Your task to perform on an android device: turn on sleep mode Image 0: 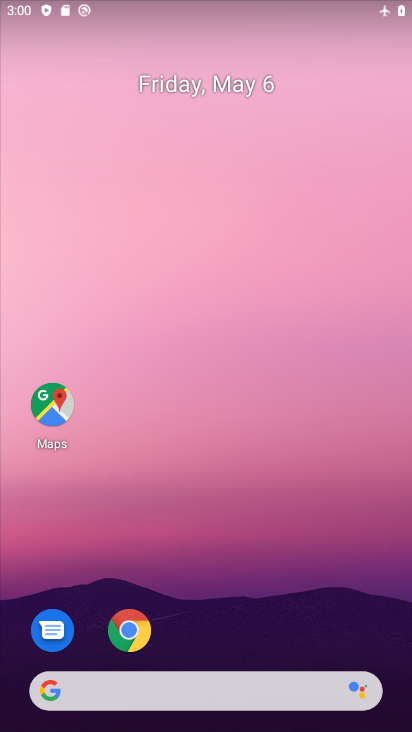
Step 0: drag from (296, 654) to (302, 69)
Your task to perform on an android device: turn on sleep mode Image 1: 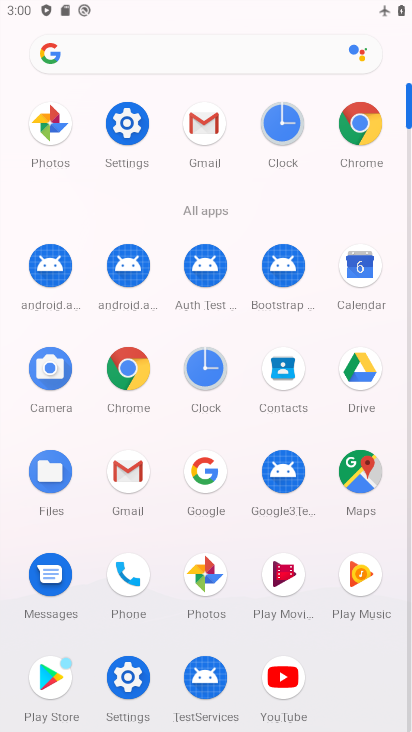
Step 1: click (125, 126)
Your task to perform on an android device: turn on sleep mode Image 2: 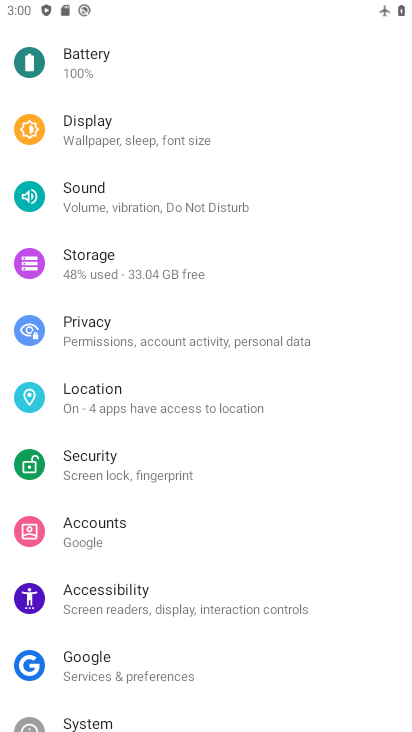
Step 2: drag from (187, 672) to (126, 370)
Your task to perform on an android device: turn on sleep mode Image 3: 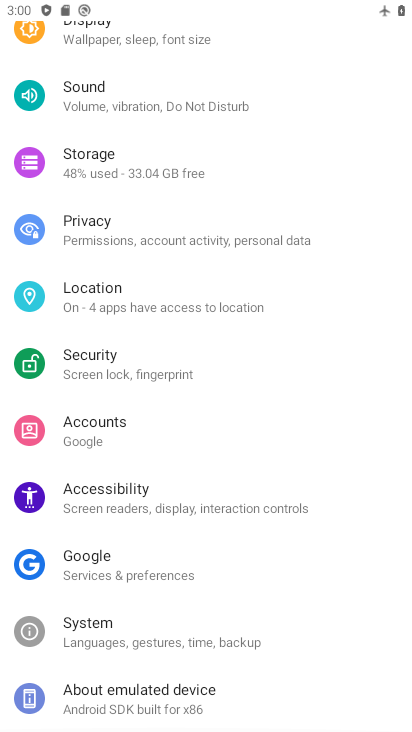
Step 3: drag from (126, 370) to (203, 580)
Your task to perform on an android device: turn on sleep mode Image 4: 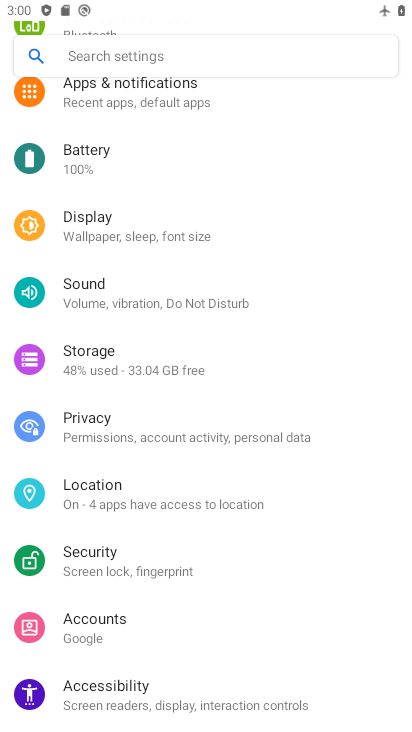
Step 4: drag from (156, 435) to (175, 544)
Your task to perform on an android device: turn on sleep mode Image 5: 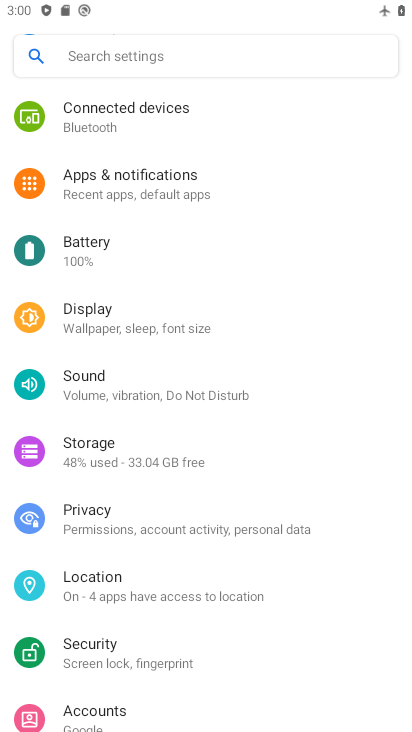
Step 5: drag from (159, 349) to (185, 526)
Your task to perform on an android device: turn on sleep mode Image 6: 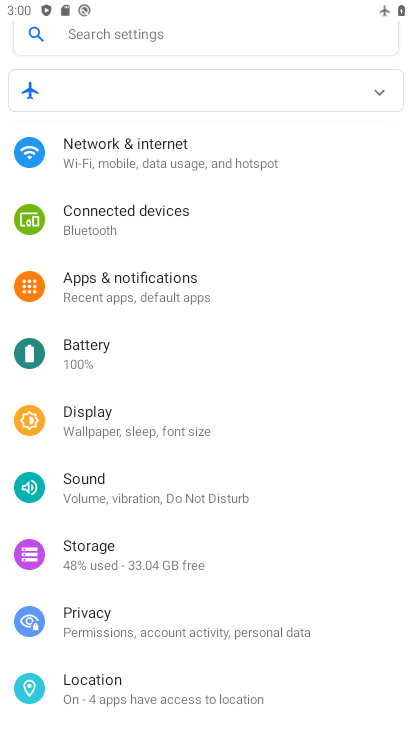
Step 6: drag from (134, 262) to (189, 620)
Your task to perform on an android device: turn on sleep mode Image 7: 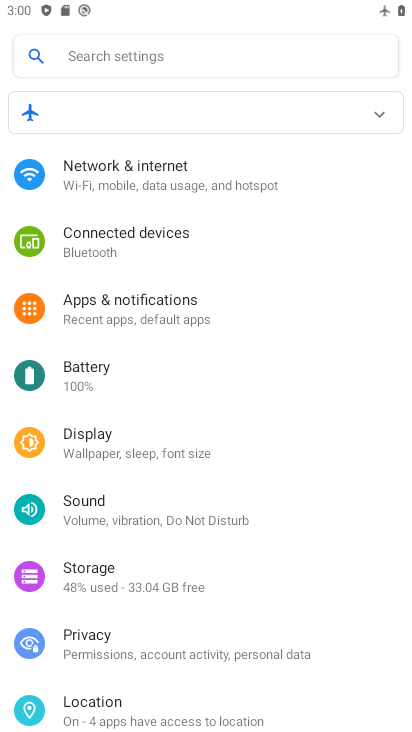
Step 7: click (153, 301)
Your task to perform on an android device: turn on sleep mode Image 8: 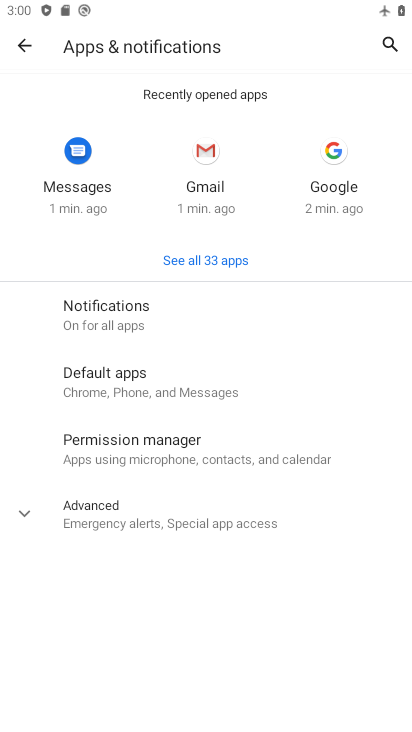
Step 8: click (14, 54)
Your task to perform on an android device: turn on sleep mode Image 9: 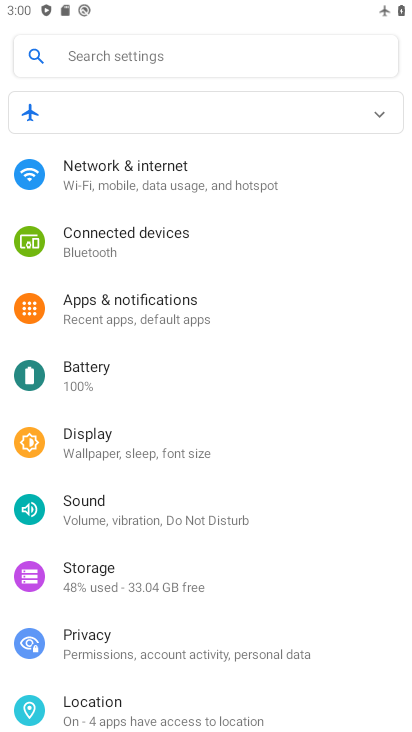
Step 9: click (130, 455)
Your task to perform on an android device: turn on sleep mode Image 10: 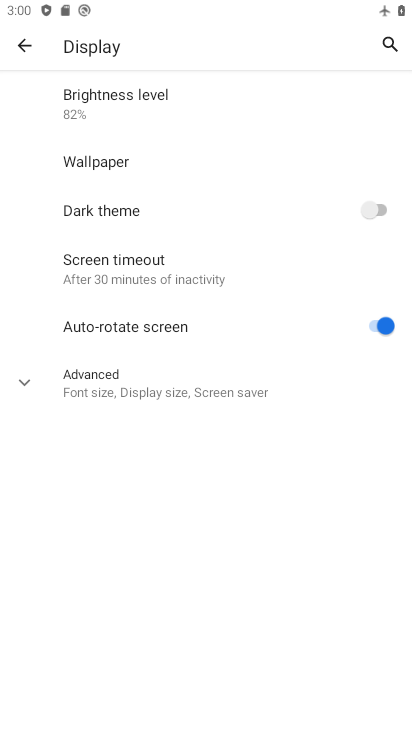
Step 10: task complete